Your task to perform on an android device: Open calendar and show me the second week of next month Image 0: 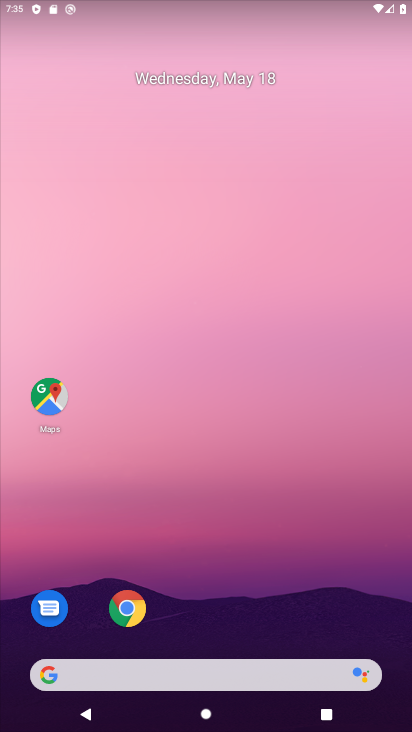
Step 0: drag from (307, 609) to (284, 119)
Your task to perform on an android device: Open calendar and show me the second week of next month Image 1: 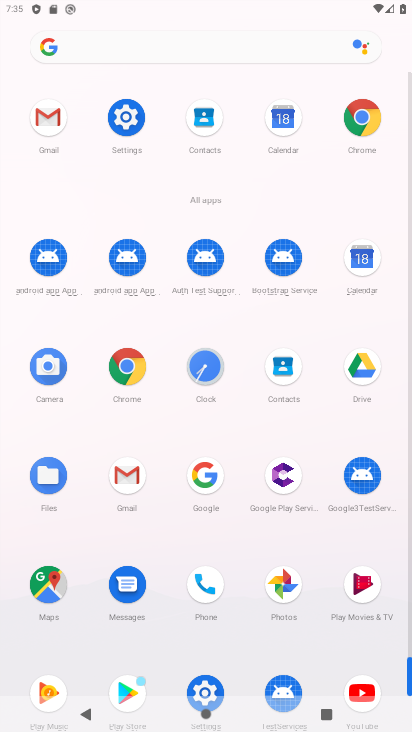
Step 1: click (367, 264)
Your task to perform on an android device: Open calendar and show me the second week of next month Image 2: 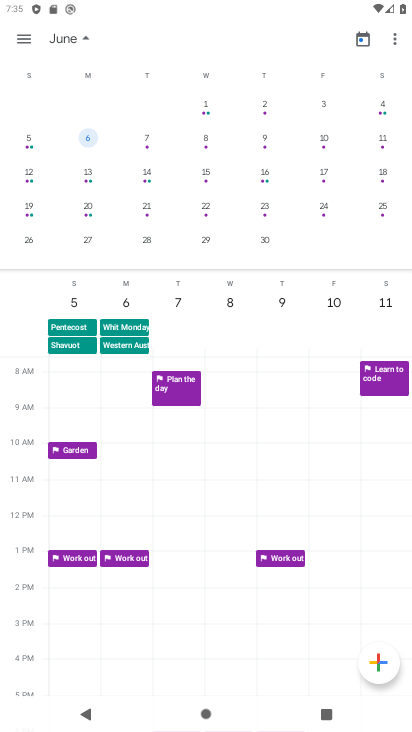
Step 2: click (71, 33)
Your task to perform on an android device: Open calendar and show me the second week of next month Image 3: 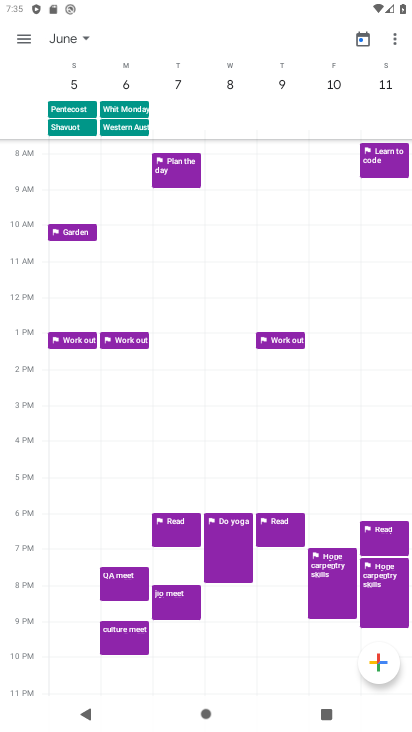
Step 3: click (86, 32)
Your task to perform on an android device: Open calendar and show me the second week of next month Image 4: 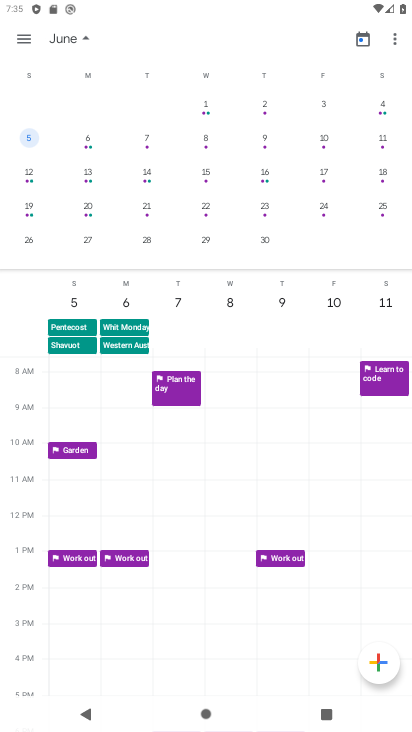
Step 4: click (86, 174)
Your task to perform on an android device: Open calendar and show me the second week of next month Image 5: 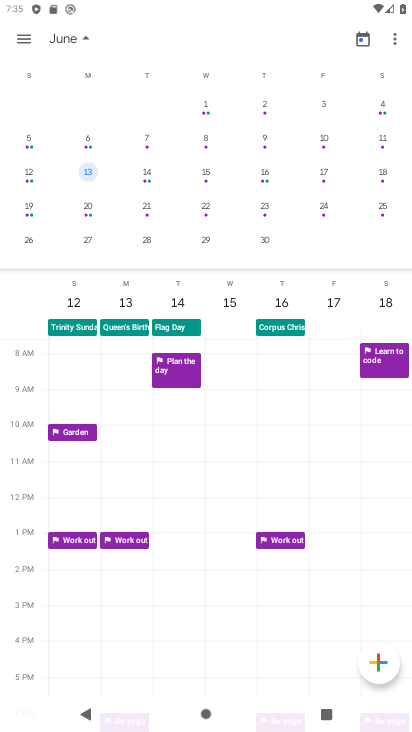
Step 5: task complete